Your task to perform on an android device: Open battery settings Image 0: 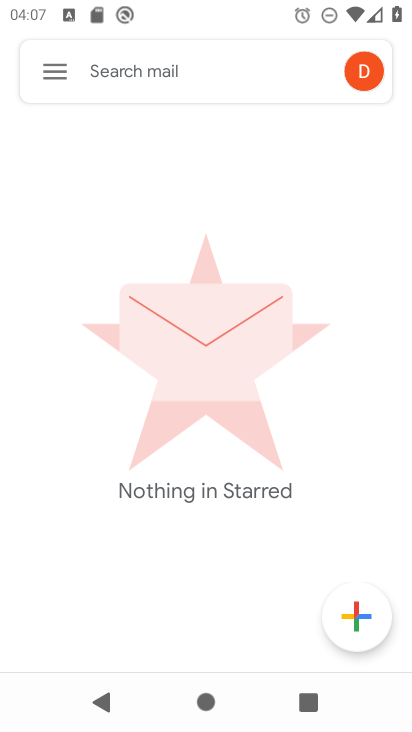
Step 0: click (45, 72)
Your task to perform on an android device: Open battery settings Image 1: 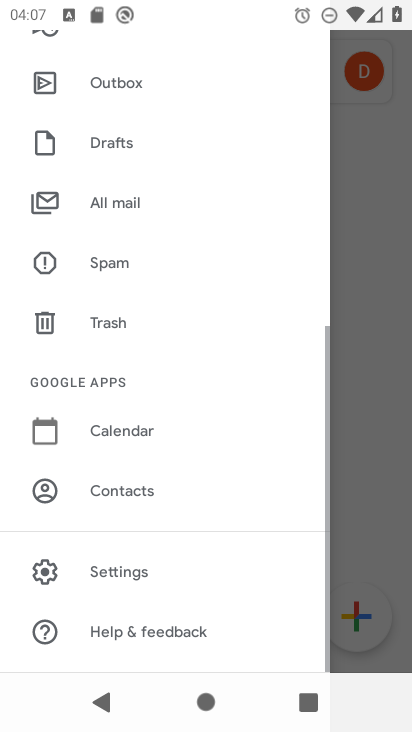
Step 1: click (146, 581)
Your task to perform on an android device: Open battery settings Image 2: 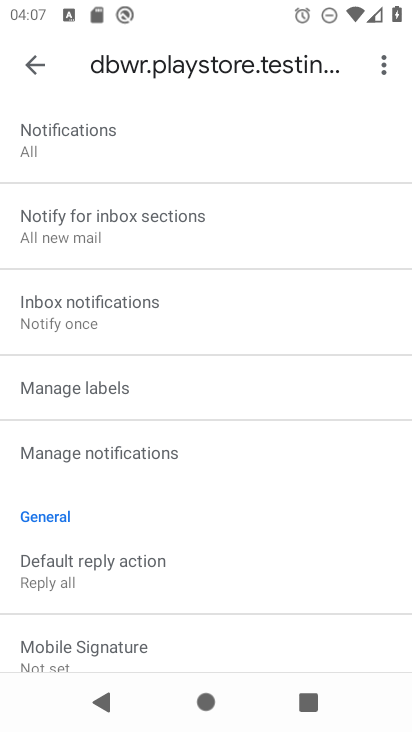
Step 2: press home button
Your task to perform on an android device: Open battery settings Image 3: 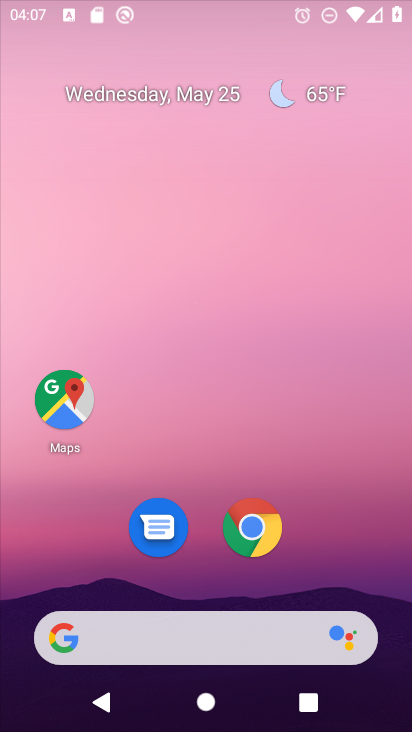
Step 3: drag from (273, 502) to (353, 6)
Your task to perform on an android device: Open battery settings Image 4: 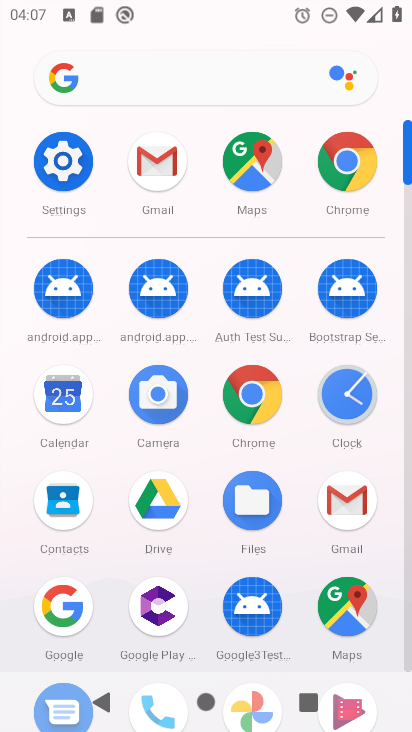
Step 4: click (52, 222)
Your task to perform on an android device: Open battery settings Image 5: 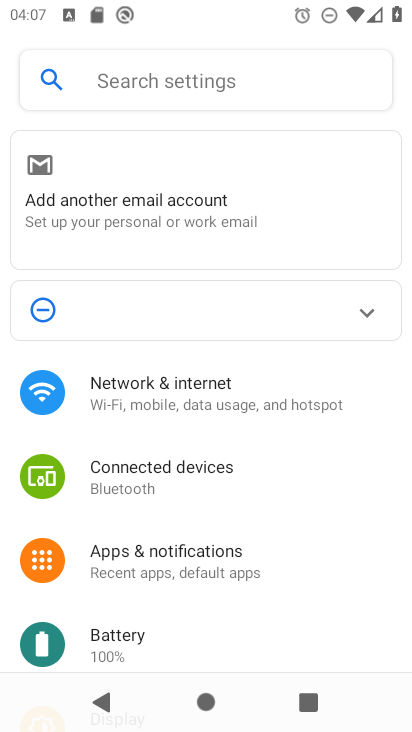
Step 5: drag from (191, 512) to (194, 180)
Your task to perform on an android device: Open battery settings Image 6: 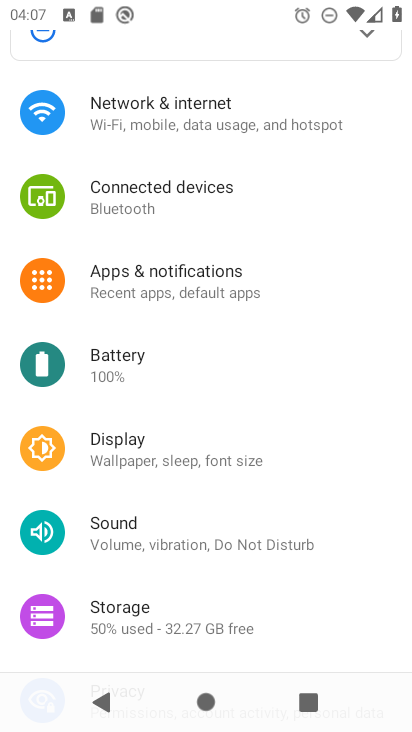
Step 6: click (137, 364)
Your task to perform on an android device: Open battery settings Image 7: 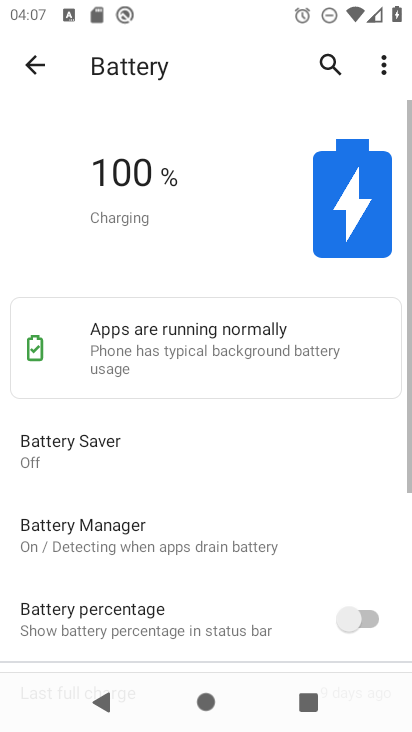
Step 7: task complete